Your task to perform on an android device: Open Google Image 0: 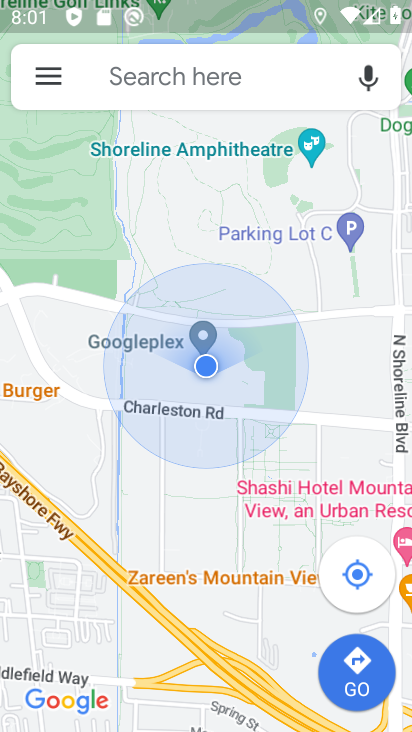
Step 0: press home button
Your task to perform on an android device: Open Google Image 1: 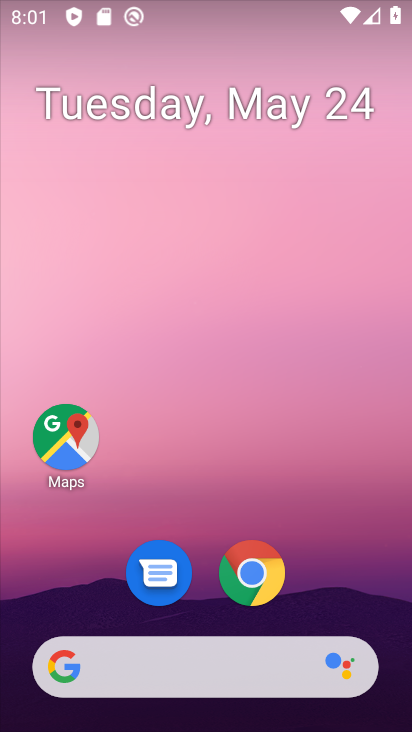
Step 1: drag from (233, 510) to (335, 18)
Your task to perform on an android device: Open Google Image 2: 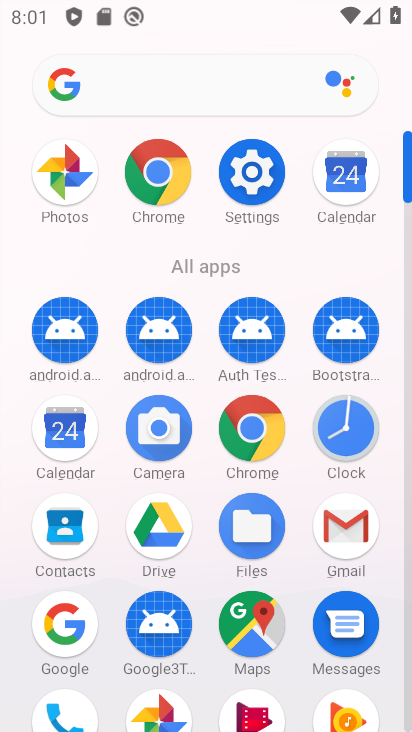
Step 2: click (84, 615)
Your task to perform on an android device: Open Google Image 3: 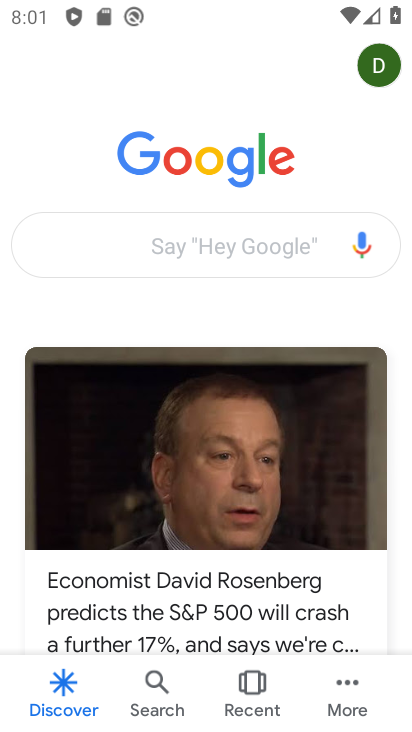
Step 3: task complete